Your task to perform on an android device: turn on translation in the chrome app Image 0: 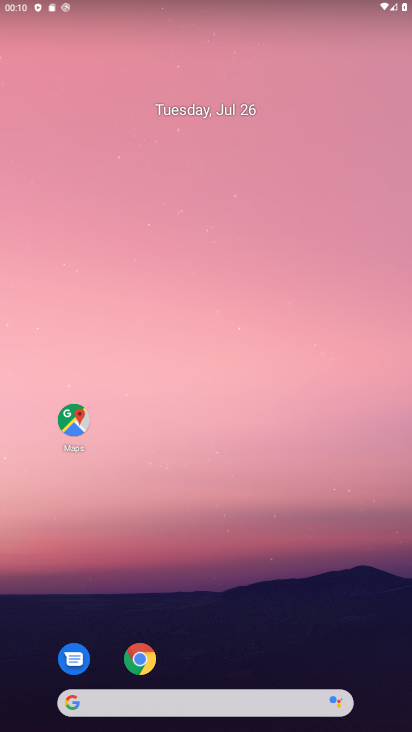
Step 0: drag from (247, 584) to (107, 4)
Your task to perform on an android device: turn on translation in the chrome app Image 1: 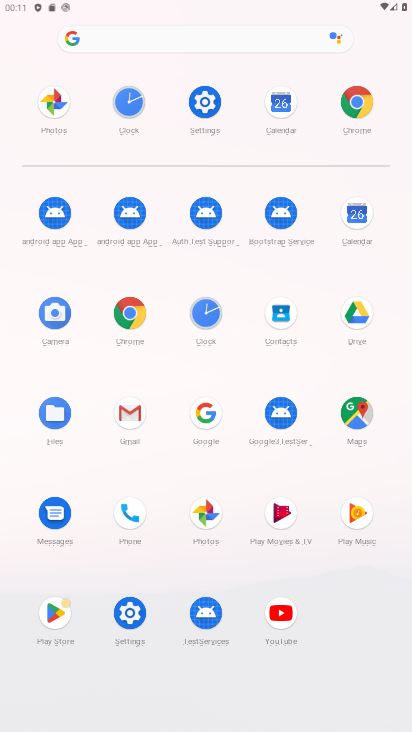
Step 1: click (359, 105)
Your task to perform on an android device: turn on translation in the chrome app Image 2: 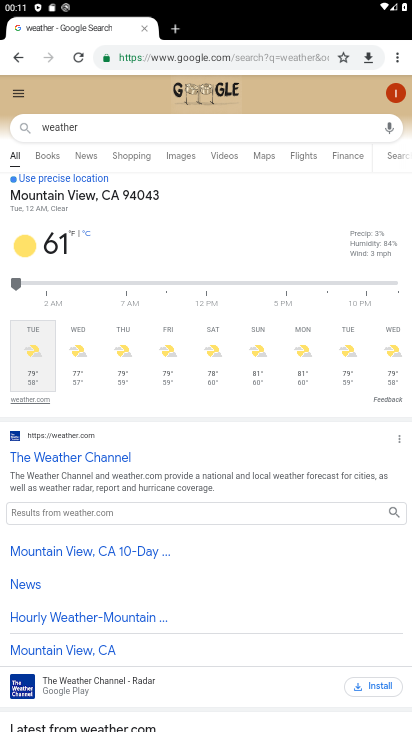
Step 2: drag from (395, 57) to (273, 357)
Your task to perform on an android device: turn on translation in the chrome app Image 3: 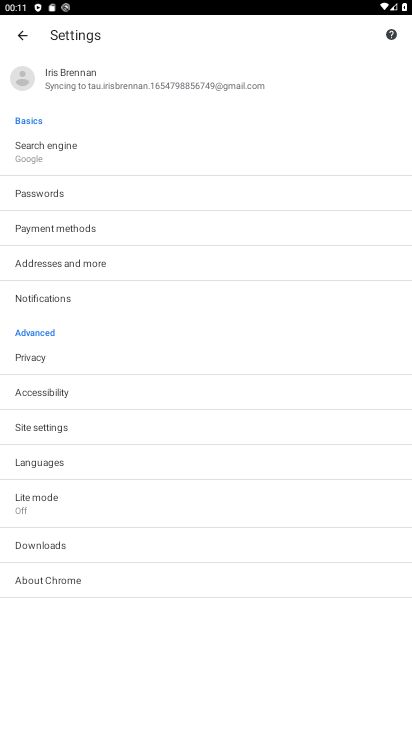
Step 3: click (45, 466)
Your task to perform on an android device: turn on translation in the chrome app Image 4: 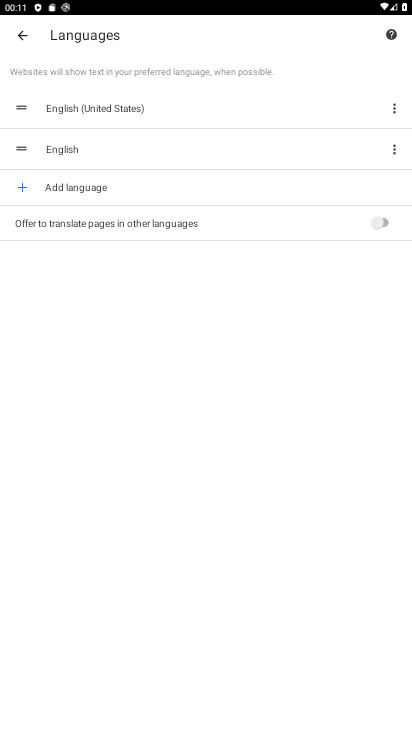
Step 4: click (378, 213)
Your task to perform on an android device: turn on translation in the chrome app Image 5: 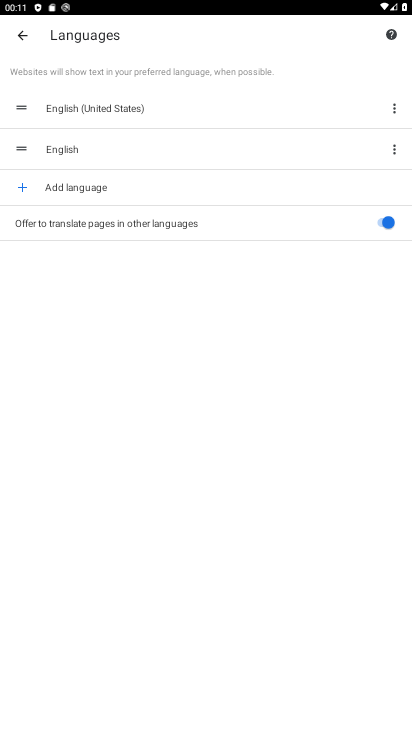
Step 5: task complete